Your task to perform on an android device: delete browsing data in the chrome app Image 0: 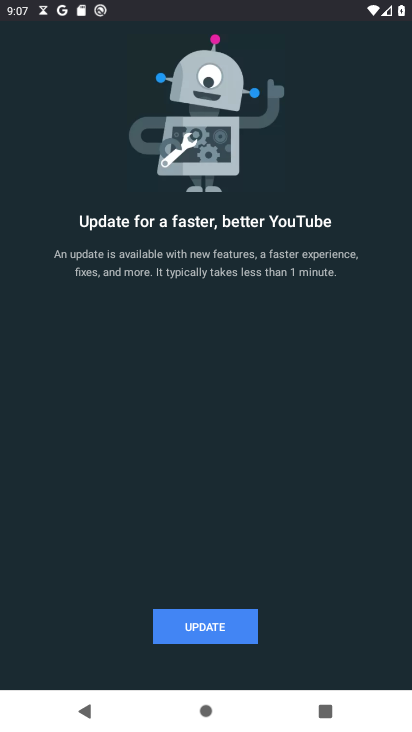
Step 0: press home button
Your task to perform on an android device: delete browsing data in the chrome app Image 1: 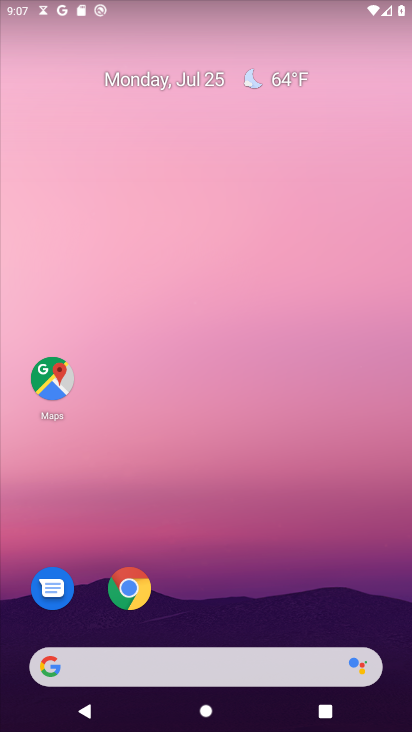
Step 1: click (132, 581)
Your task to perform on an android device: delete browsing data in the chrome app Image 2: 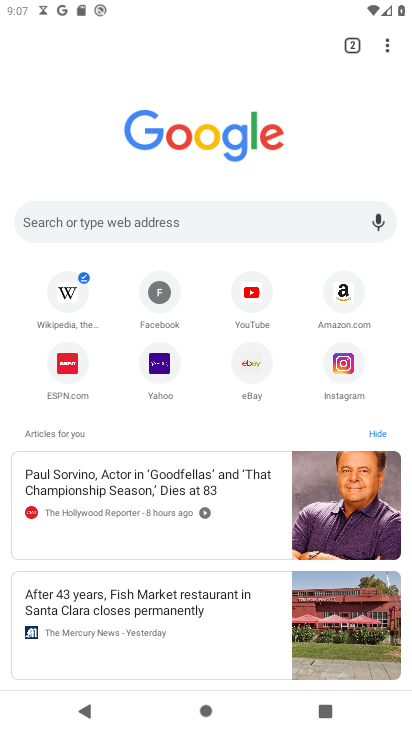
Step 2: drag from (384, 43) to (217, 249)
Your task to perform on an android device: delete browsing data in the chrome app Image 3: 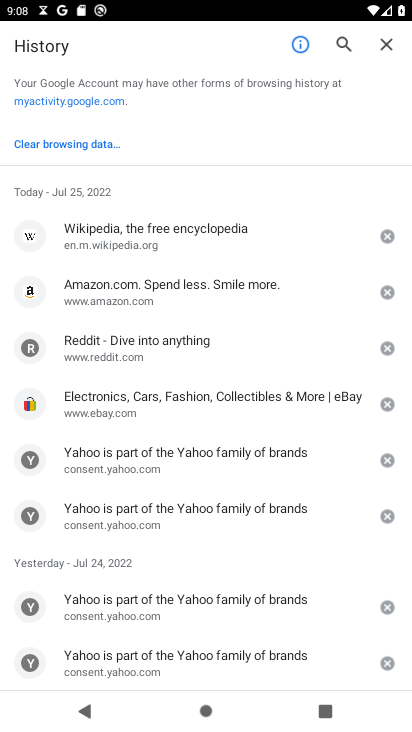
Step 3: click (35, 146)
Your task to perform on an android device: delete browsing data in the chrome app Image 4: 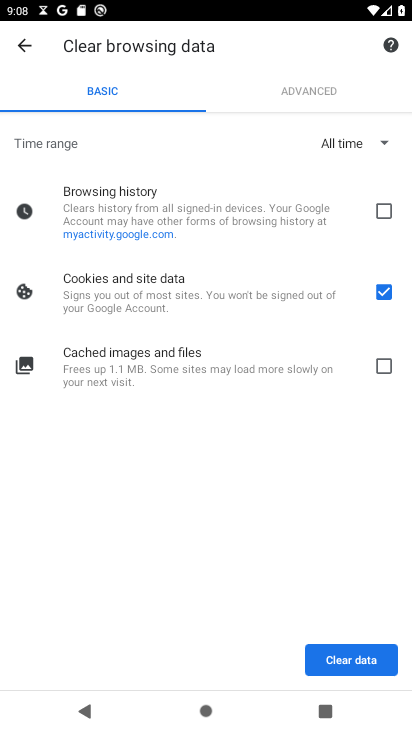
Step 4: click (386, 225)
Your task to perform on an android device: delete browsing data in the chrome app Image 5: 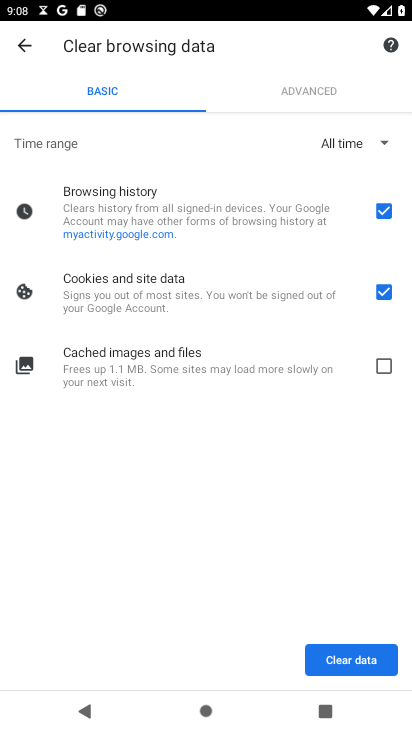
Step 5: click (350, 644)
Your task to perform on an android device: delete browsing data in the chrome app Image 6: 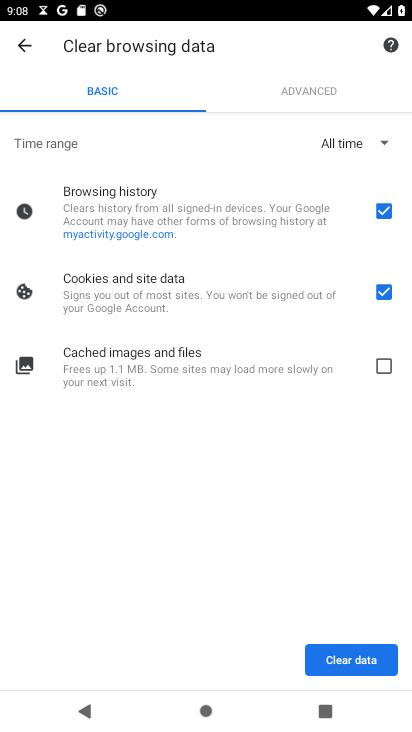
Step 6: click (334, 667)
Your task to perform on an android device: delete browsing data in the chrome app Image 7: 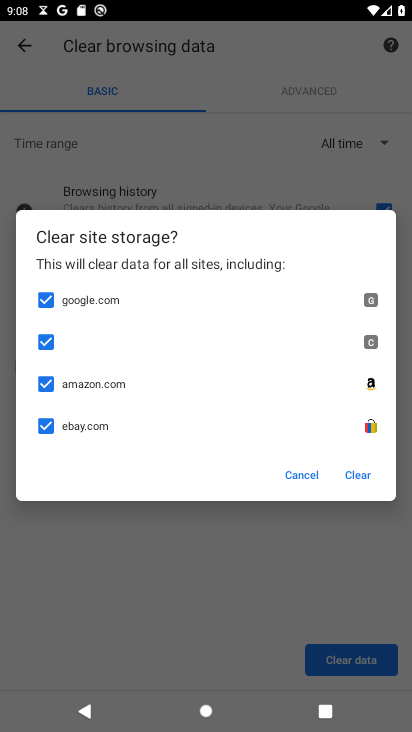
Step 7: click (357, 473)
Your task to perform on an android device: delete browsing data in the chrome app Image 8: 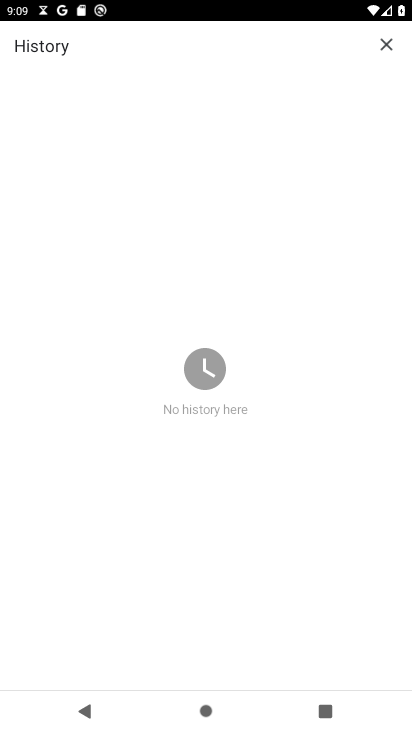
Step 8: task complete